Your task to perform on an android device: turn on sleep mode Image 0: 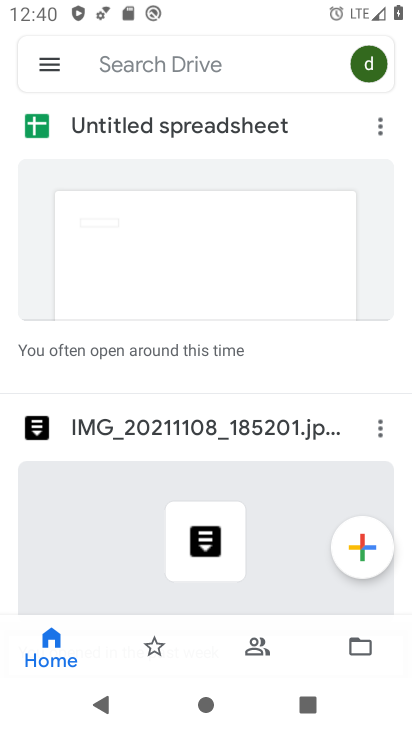
Step 0: press home button
Your task to perform on an android device: turn on sleep mode Image 1: 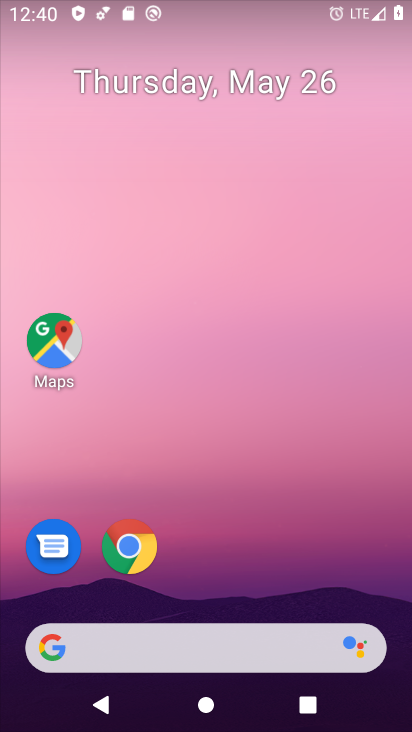
Step 1: drag from (392, 606) to (223, 53)
Your task to perform on an android device: turn on sleep mode Image 2: 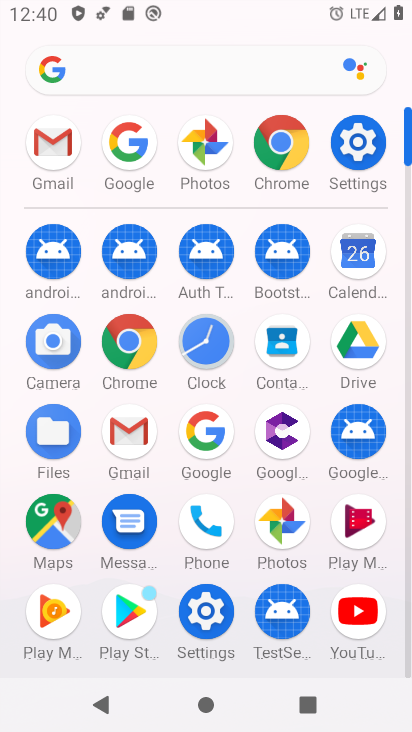
Step 2: click (351, 150)
Your task to perform on an android device: turn on sleep mode Image 3: 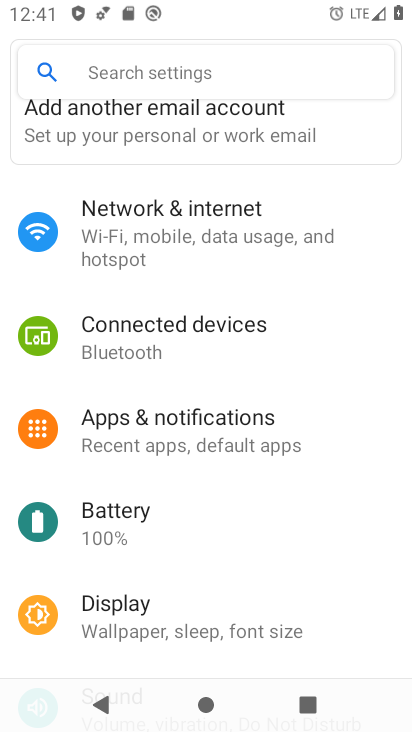
Step 3: task complete